Your task to perform on an android device: Go to Yahoo.com Image 0: 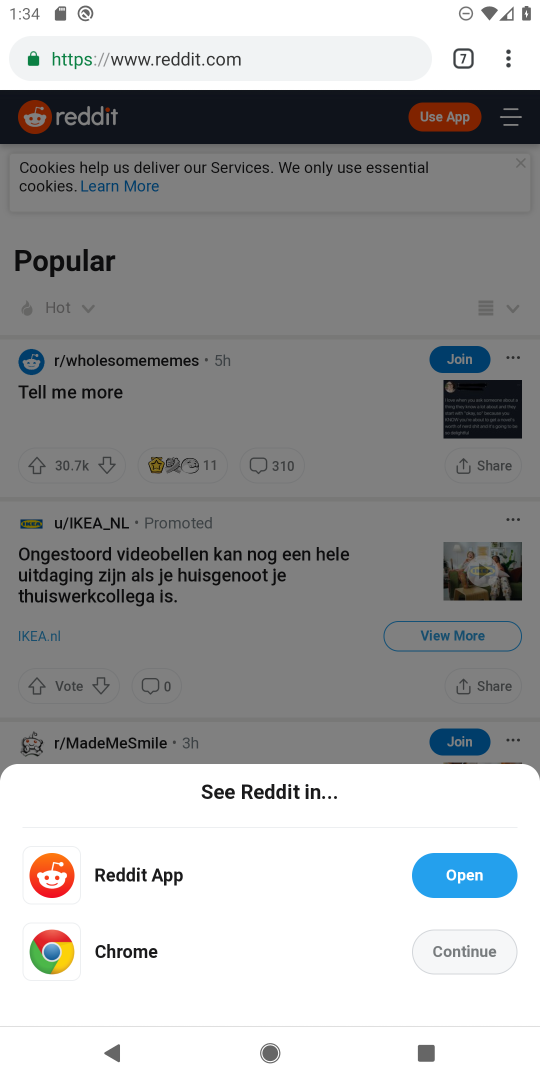
Step 0: press home button
Your task to perform on an android device: Go to Yahoo.com Image 1: 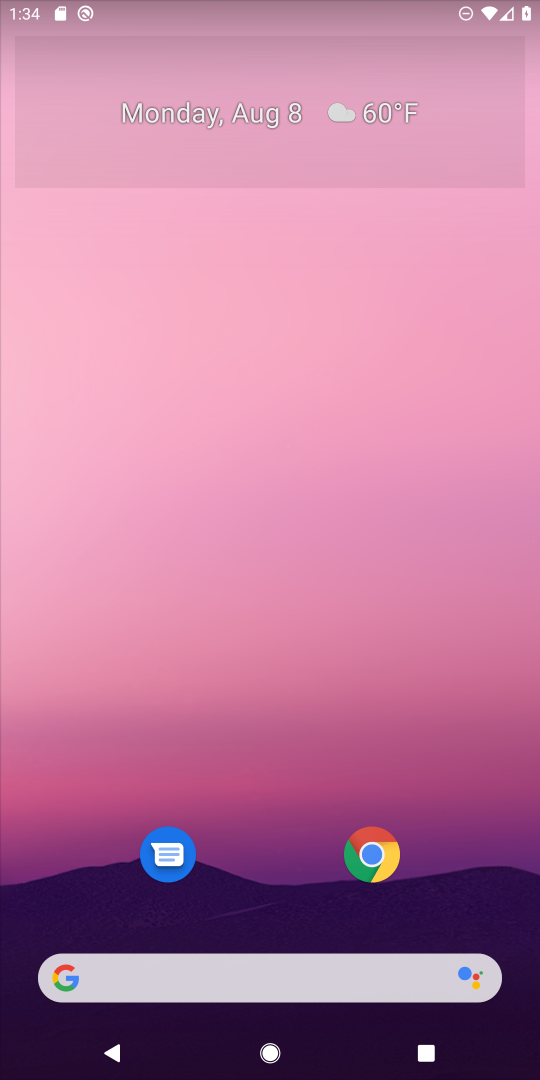
Step 1: click (62, 984)
Your task to perform on an android device: Go to Yahoo.com Image 2: 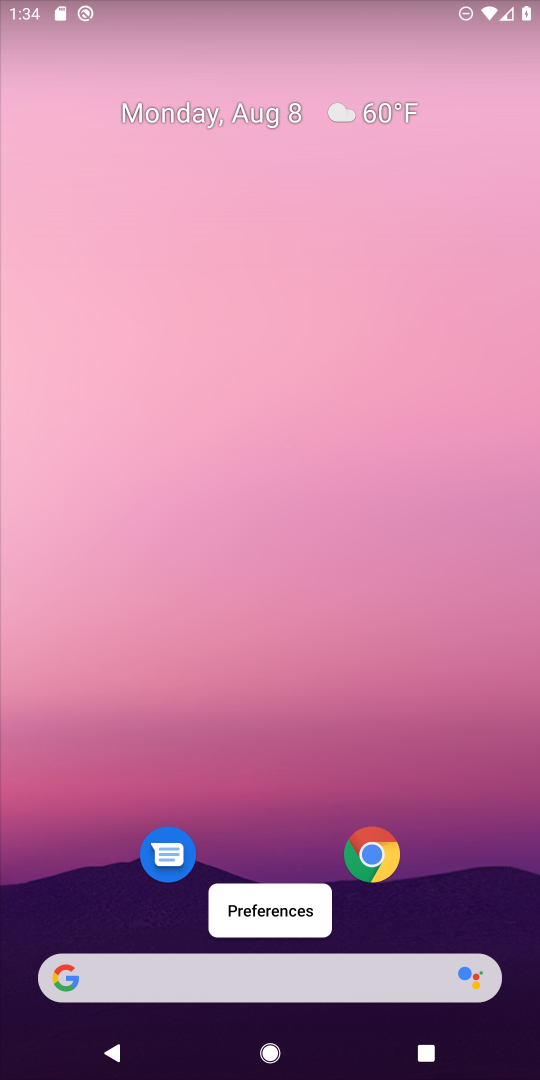
Step 2: click (48, 978)
Your task to perform on an android device: Go to Yahoo.com Image 3: 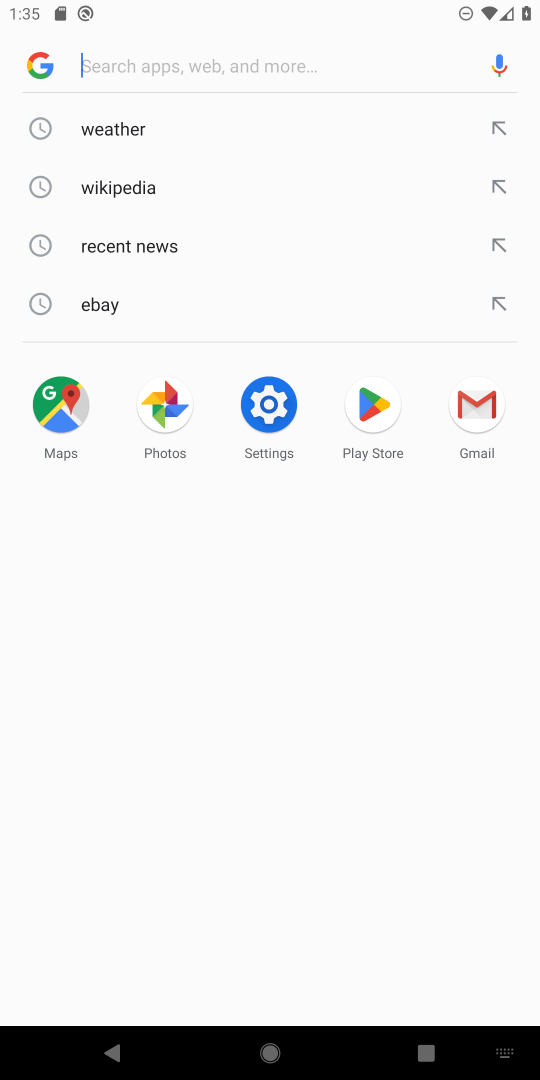
Step 3: type " Yahoo.com"
Your task to perform on an android device: Go to Yahoo.com Image 4: 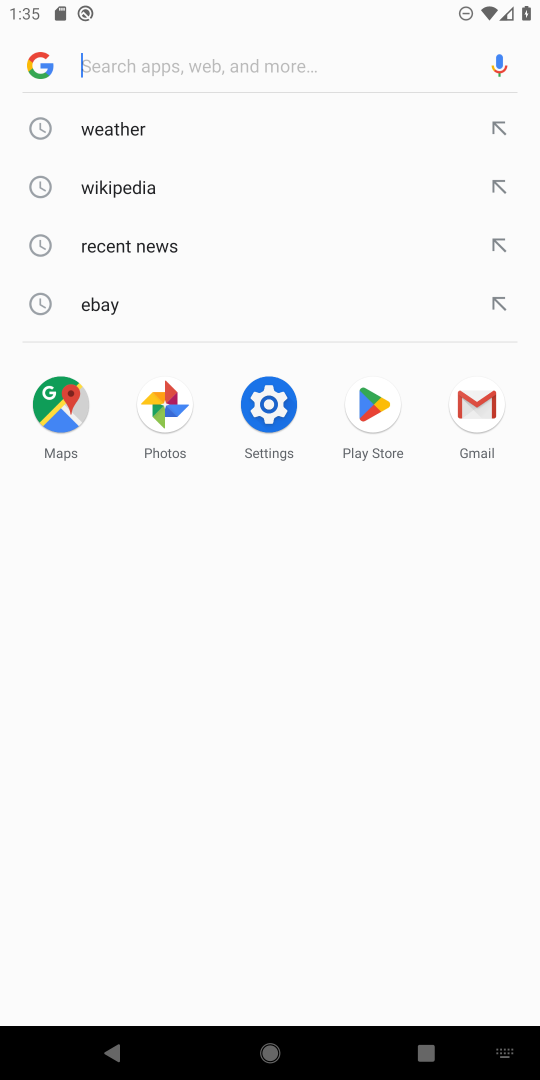
Step 4: click (194, 64)
Your task to perform on an android device: Go to Yahoo.com Image 5: 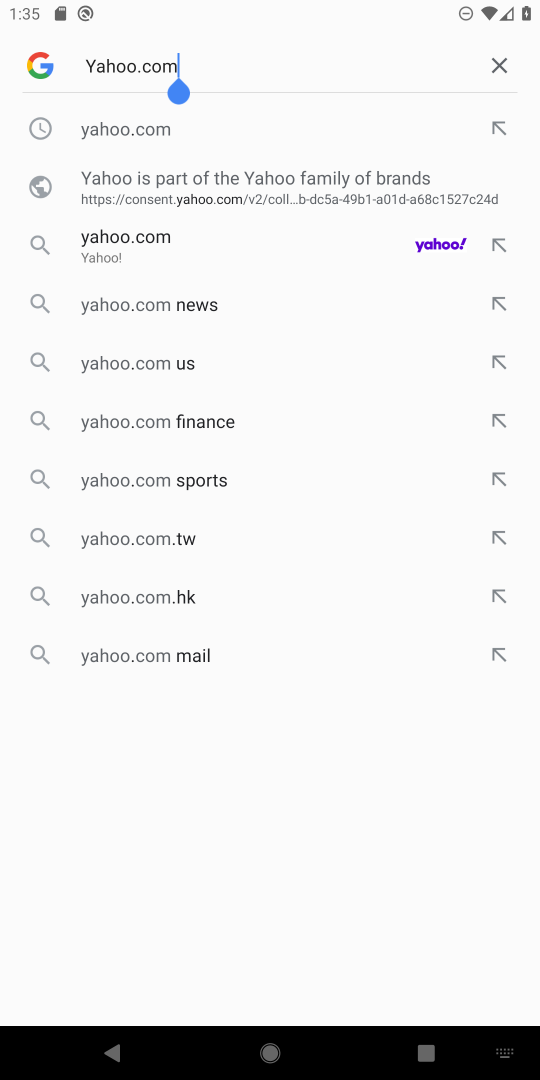
Step 5: click (421, 230)
Your task to perform on an android device: Go to Yahoo.com Image 6: 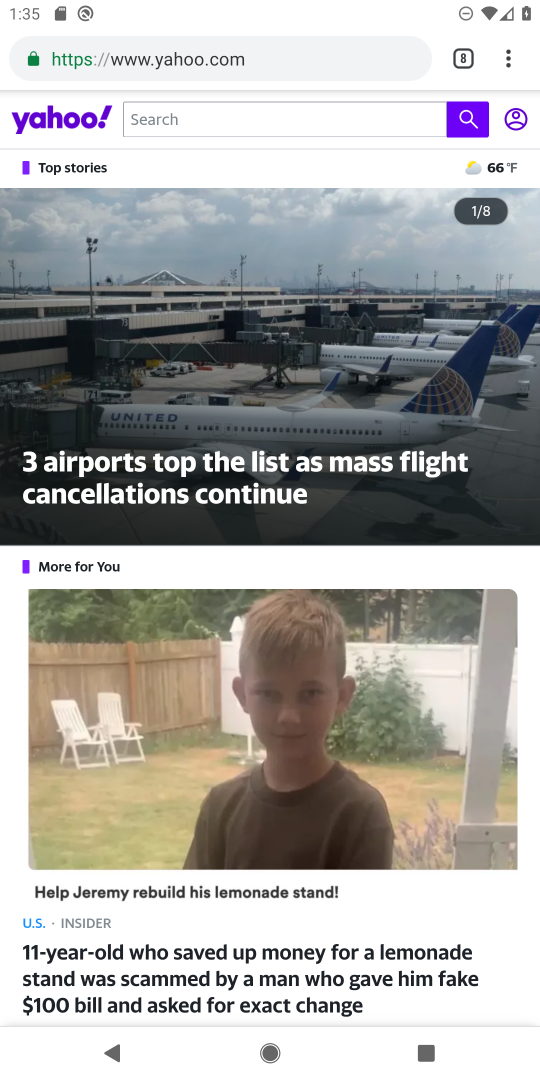
Step 6: task complete